Your task to perform on an android device: Open the phone app and click the voicemail tab. Image 0: 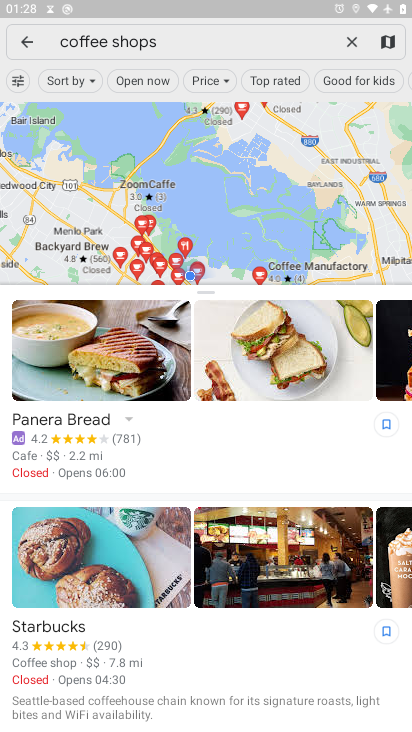
Step 0: press home button
Your task to perform on an android device: Open the phone app and click the voicemail tab. Image 1: 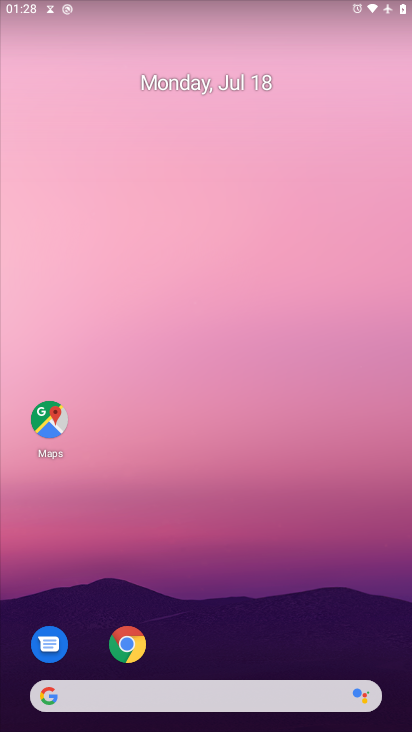
Step 1: drag from (252, 653) to (253, 115)
Your task to perform on an android device: Open the phone app and click the voicemail tab. Image 2: 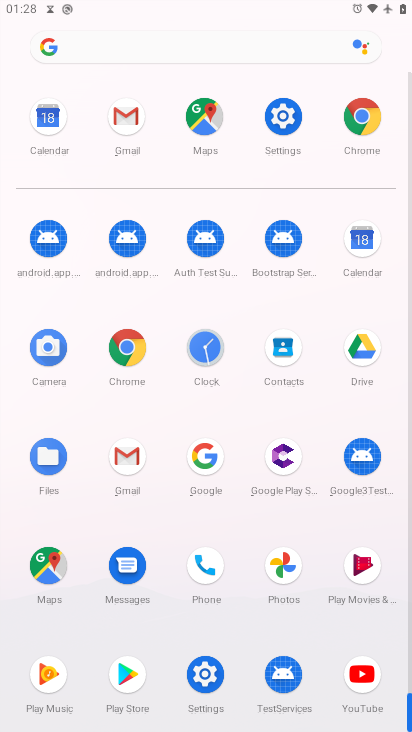
Step 2: click (201, 565)
Your task to perform on an android device: Open the phone app and click the voicemail tab. Image 3: 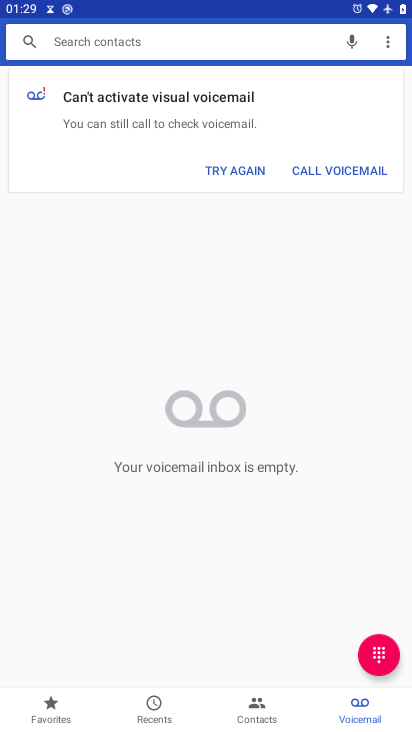
Step 3: click (355, 712)
Your task to perform on an android device: Open the phone app and click the voicemail tab. Image 4: 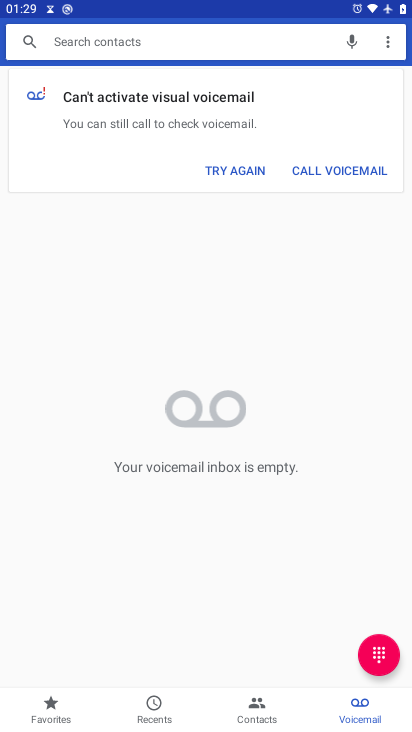
Step 4: task complete